Your task to perform on an android device: delete the emails in spam in the gmail app Image 0: 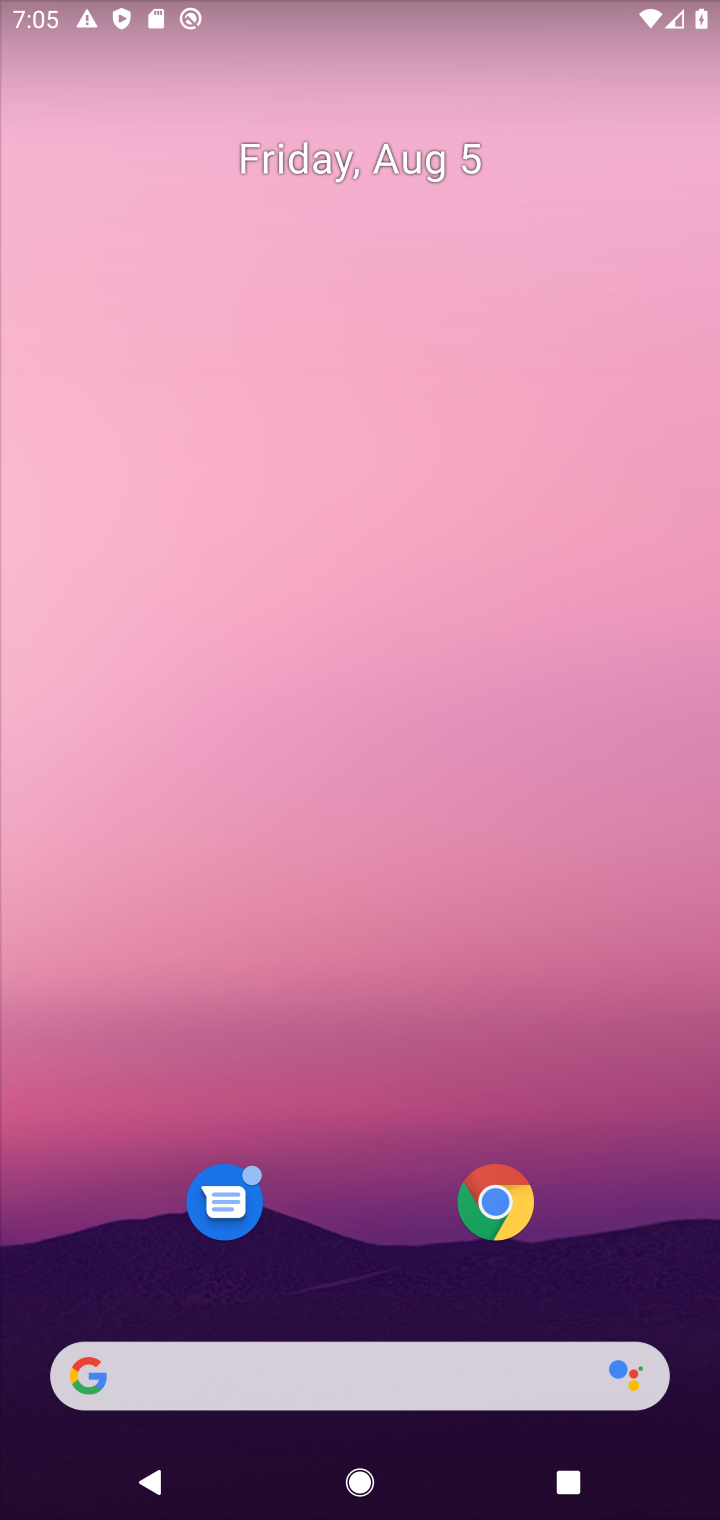
Step 0: drag from (305, 1162) to (489, 251)
Your task to perform on an android device: delete the emails in spam in the gmail app Image 1: 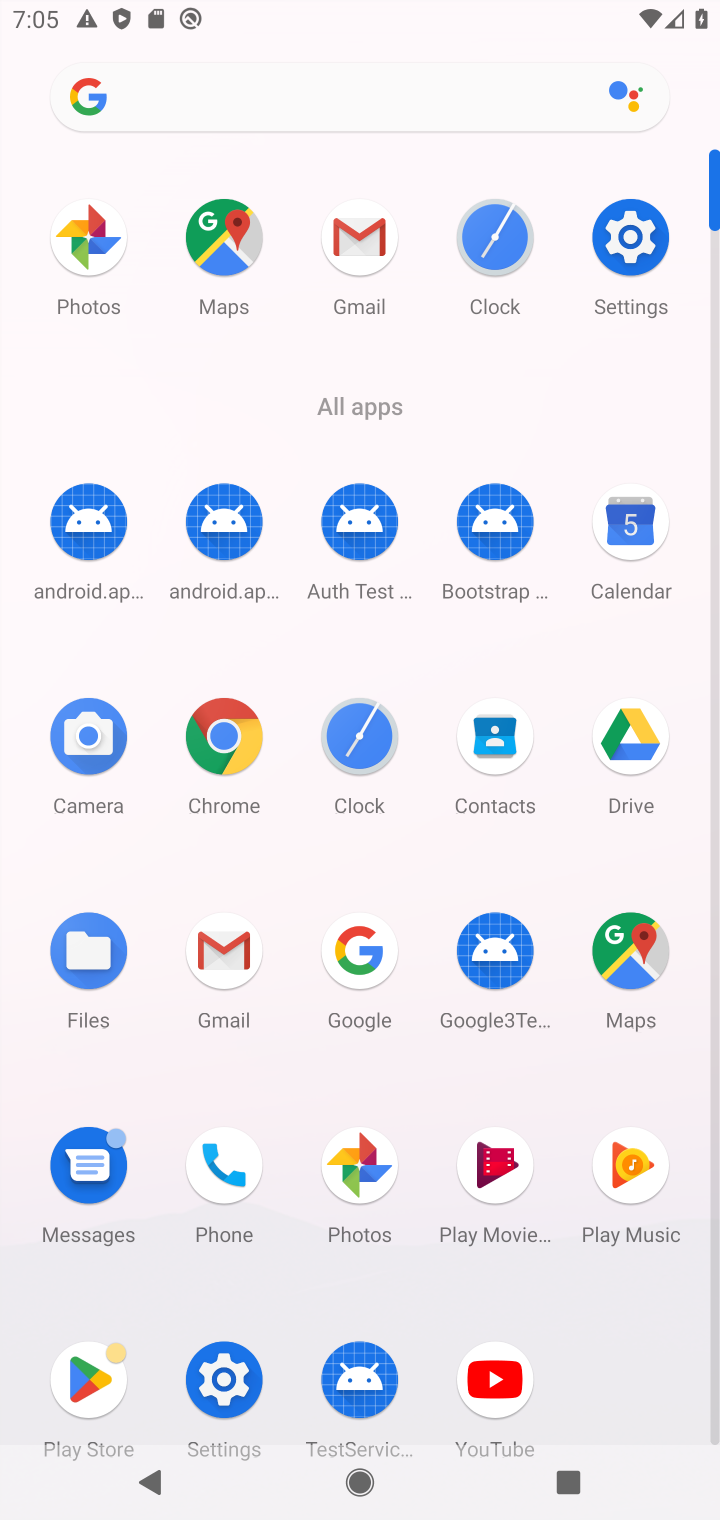
Step 1: drag from (309, 1133) to (403, 451)
Your task to perform on an android device: delete the emails in spam in the gmail app Image 2: 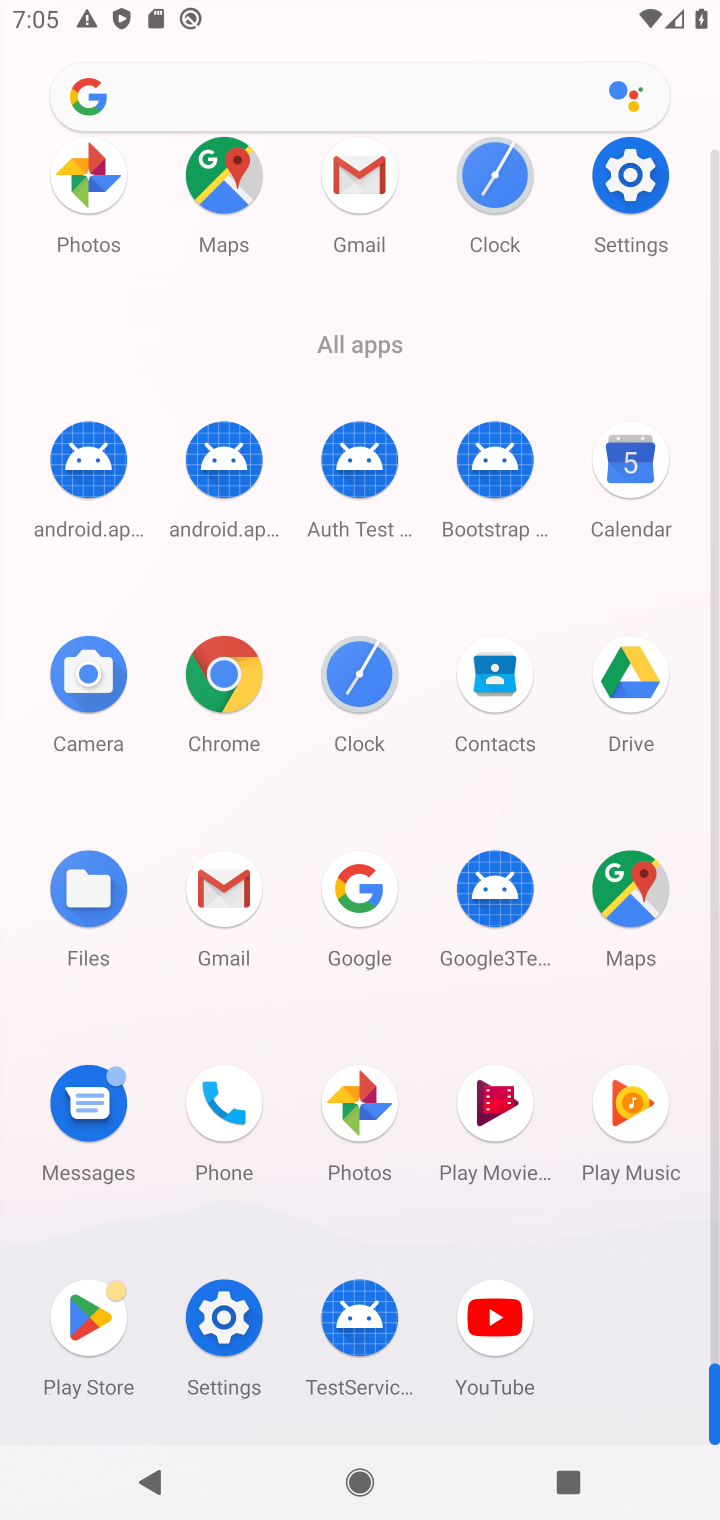
Step 2: click (245, 890)
Your task to perform on an android device: delete the emails in spam in the gmail app Image 3: 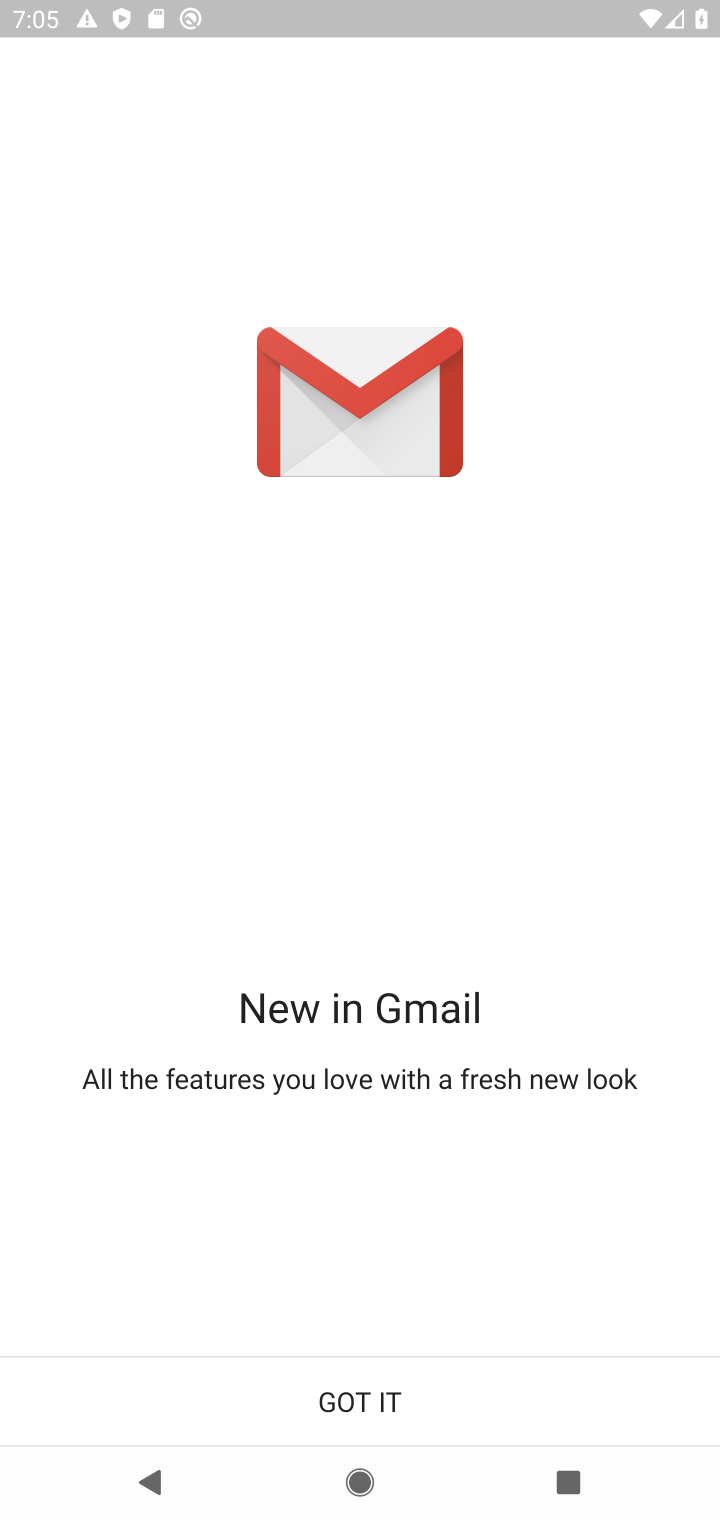
Step 3: drag from (374, 1136) to (486, 516)
Your task to perform on an android device: delete the emails in spam in the gmail app Image 4: 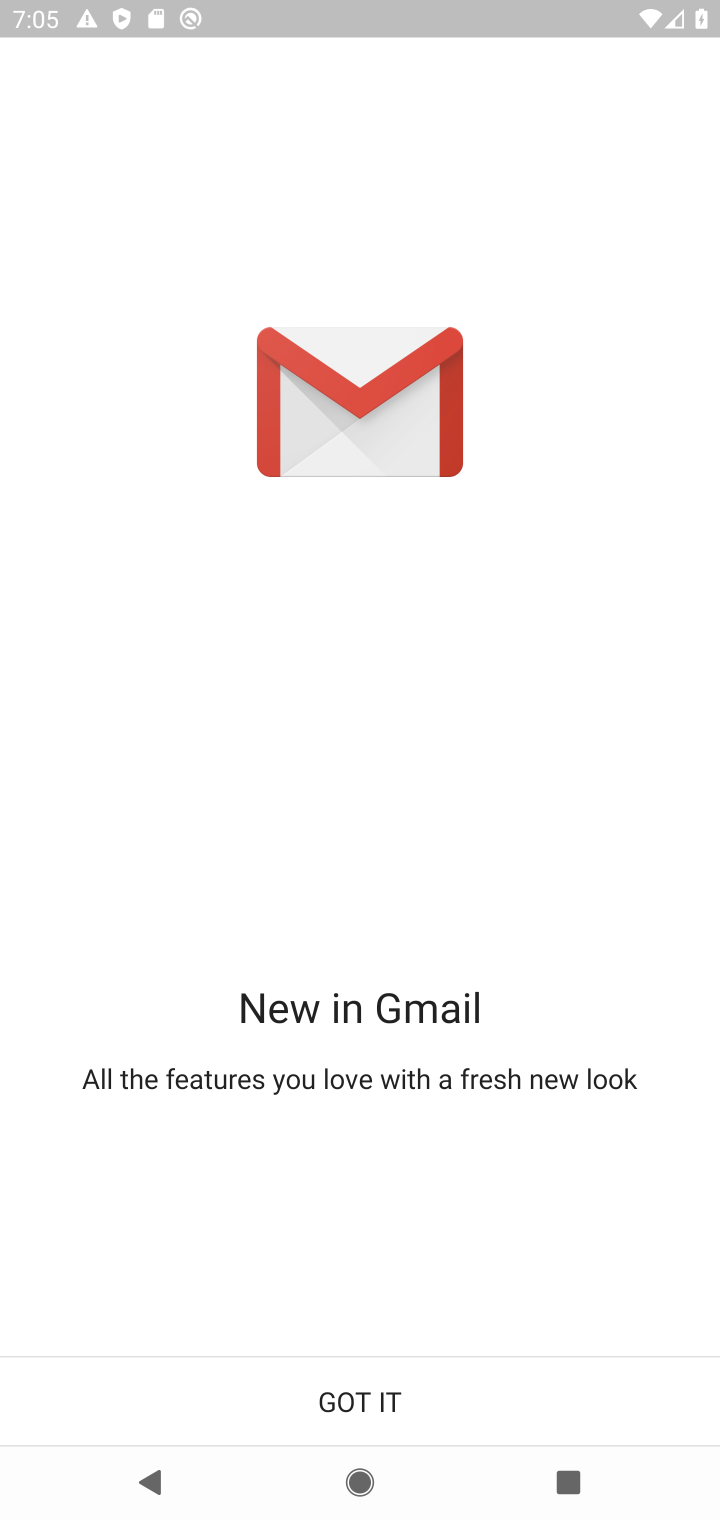
Step 4: click (391, 1392)
Your task to perform on an android device: delete the emails in spam in the gmail app Image 5: 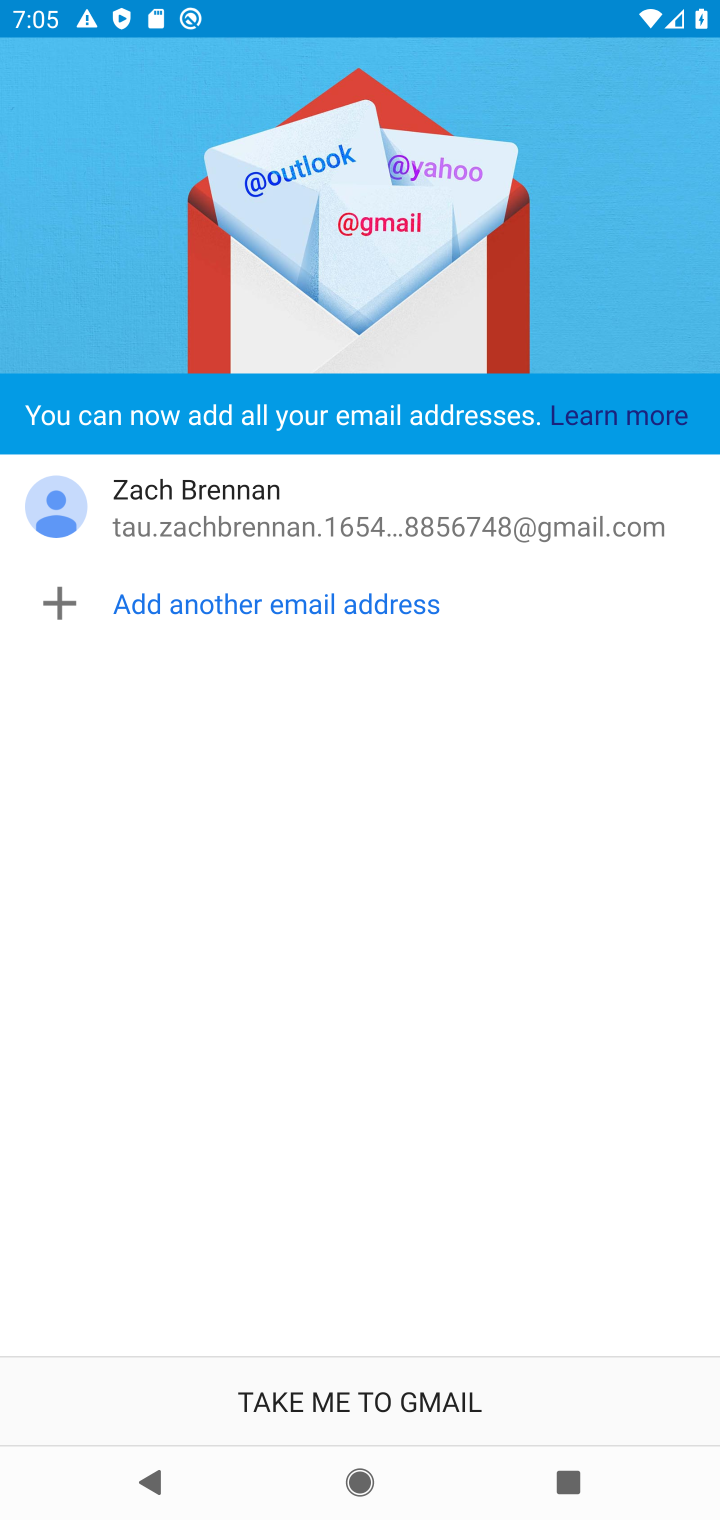
Step 5: click (324, 1398)
Your task to perform on an android device: delete the emails in spam in the gmail app Image 6: 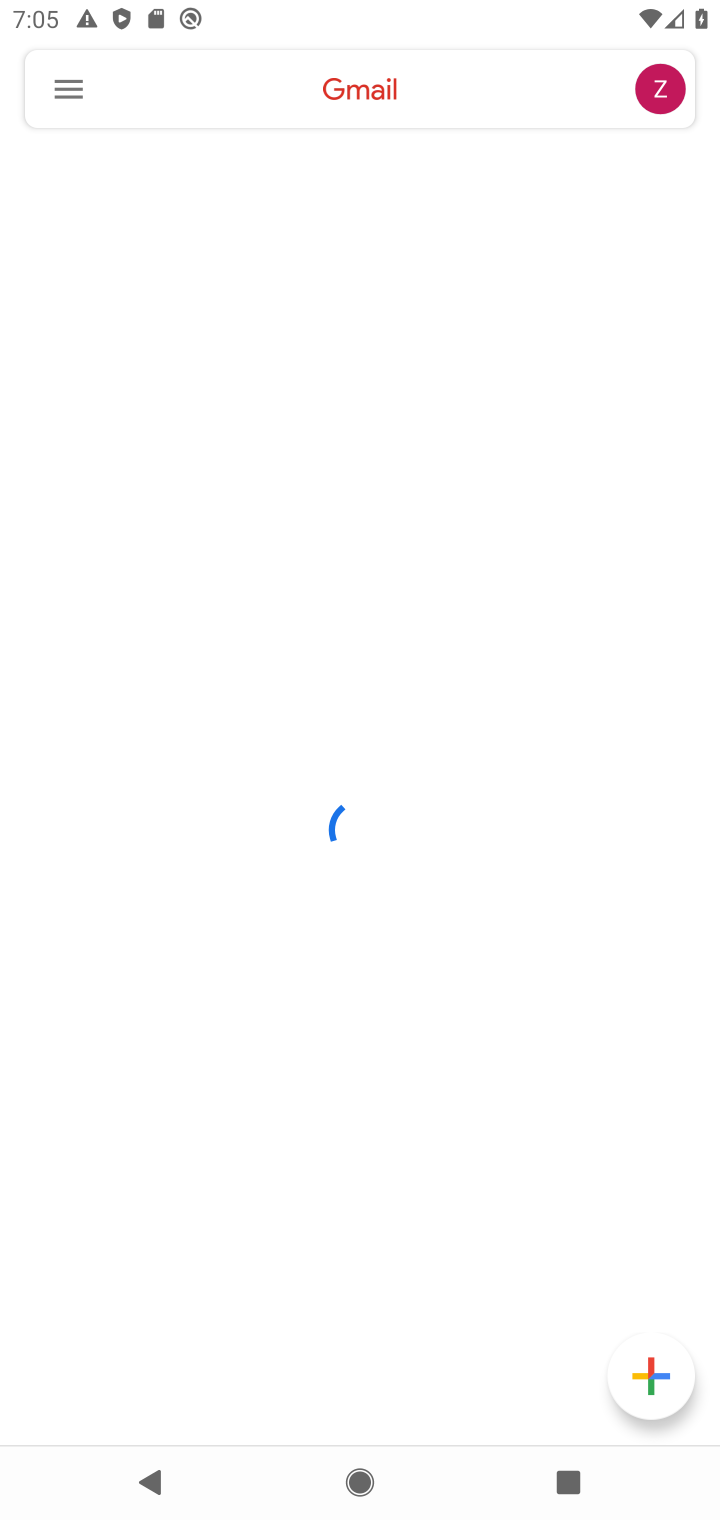
Step 6: click (76, 79)
Your task to perform on an android device: delete the emails in spam in the gmail app Image 7: 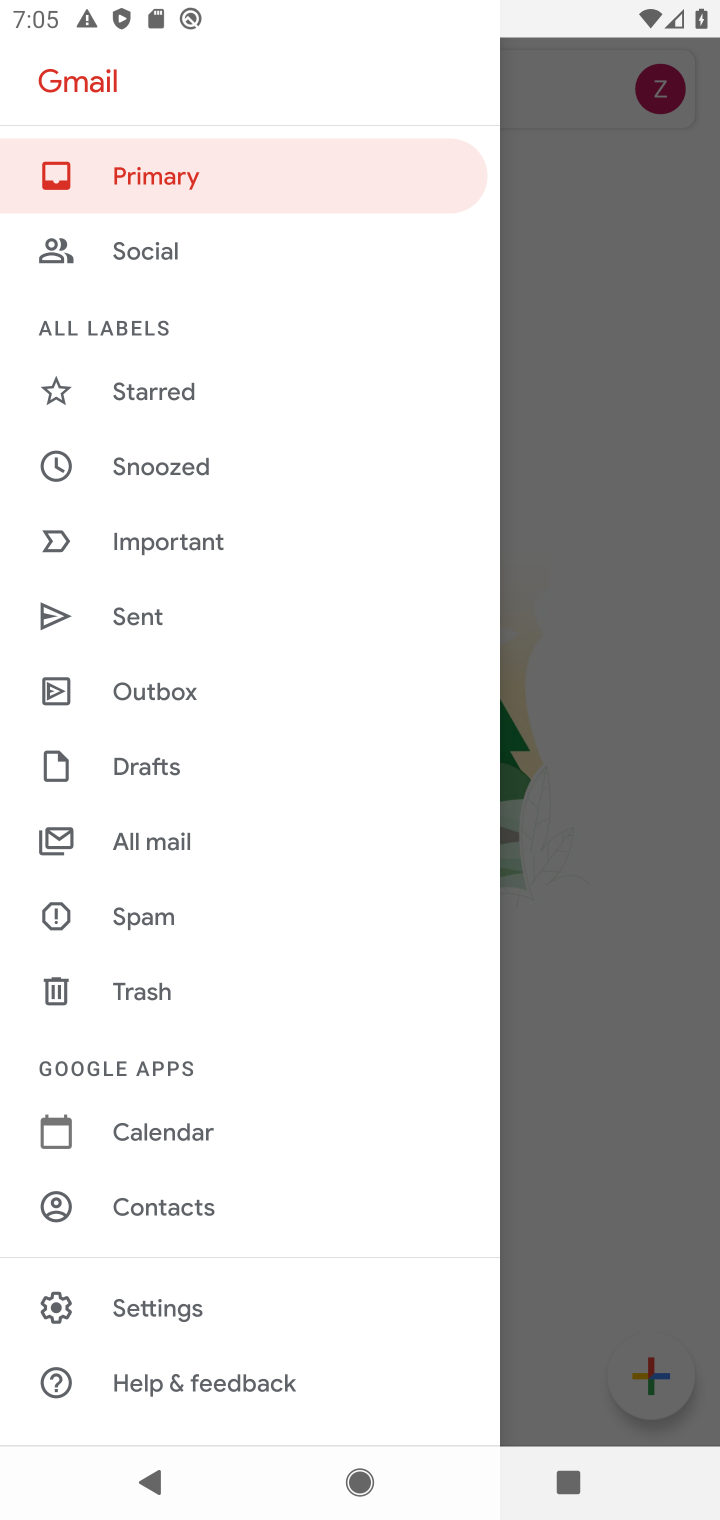
Step 7: click (112, 924)
Your task to perform on an android device: delete the emails in spam in the gmail app Image 8: 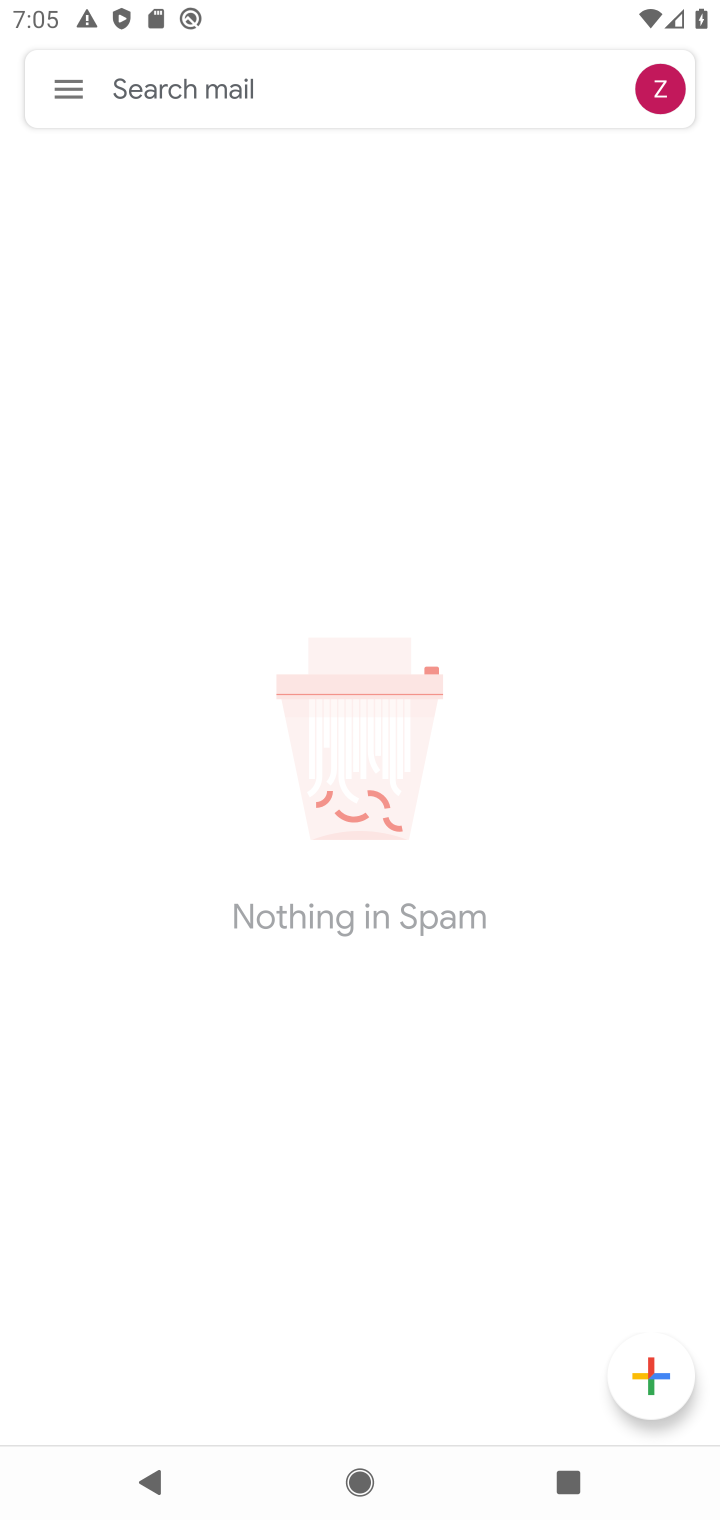
Step 8: task complete